Your task to perform on an android device: Open maps Image 0: 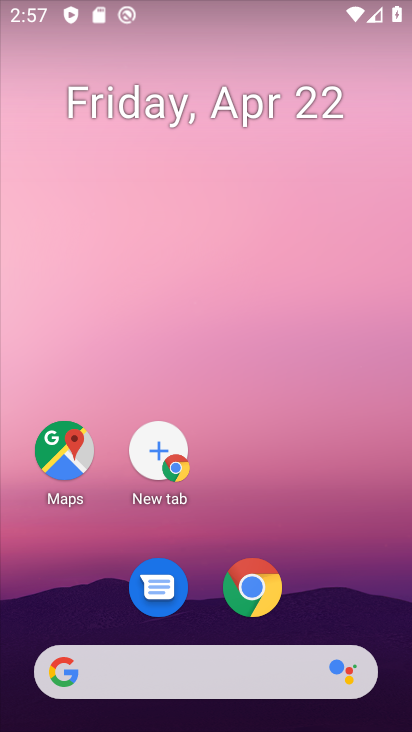
Step 0: click (73, 444)
Your task to perform on an android device: Open maps Image 1: 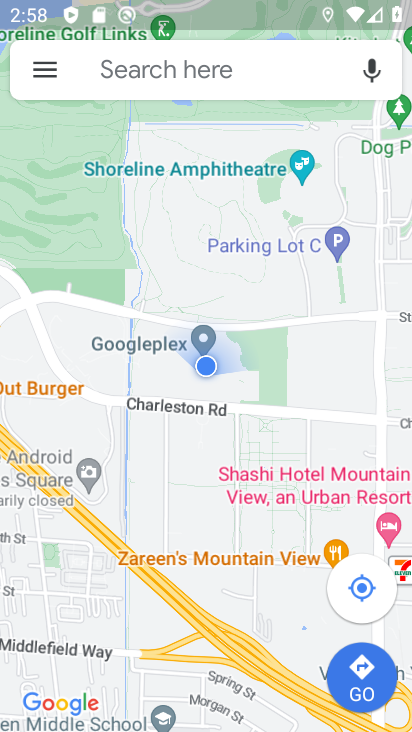
Step 1: task complete